Your task to perform on an android device: turn pop-ups off in chrome Image 0: 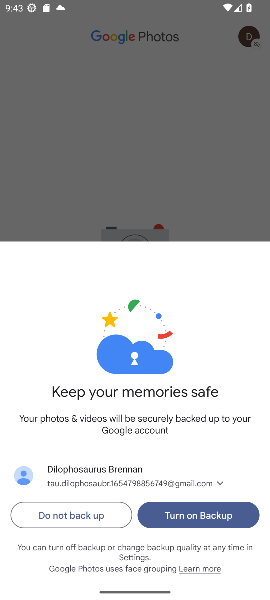
Step 0: press home button
Your task to perform on an android device: turn pop-ups off in chrome Image 1: 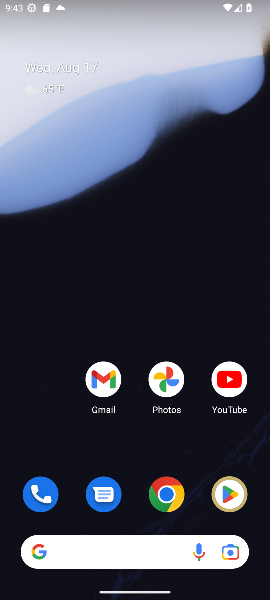
Step 1: drag from (132, 387) to (128, 29)
Your task to perform on an android device: turn pop-ups off in chrome Image 2: 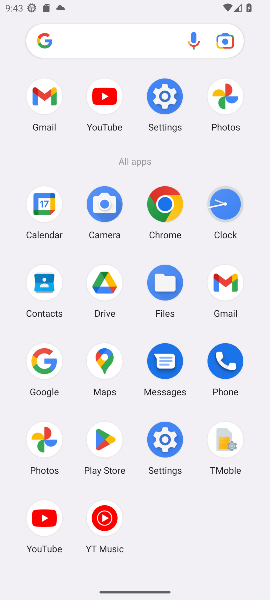
Step 2: click (163, 206)
Your task to perform on an android device: turn pop-ups off in chrome Image 3: 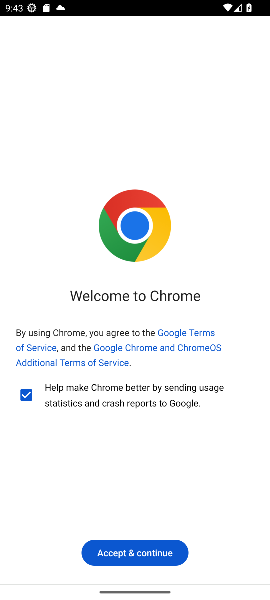
Step 3: click (132, 548)
Your task to perform on an android device: turn pop-ups off in chrome Image 4: 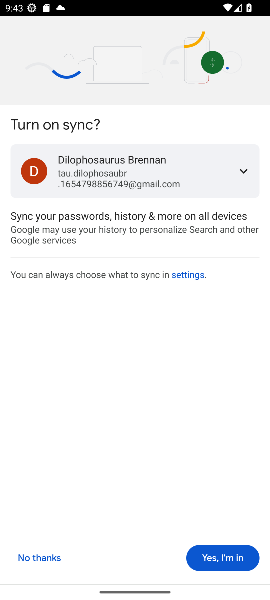
Step 4: click (248, 566)
Your task to perform on an android device: turn pop-ups off in chrome Image 5: 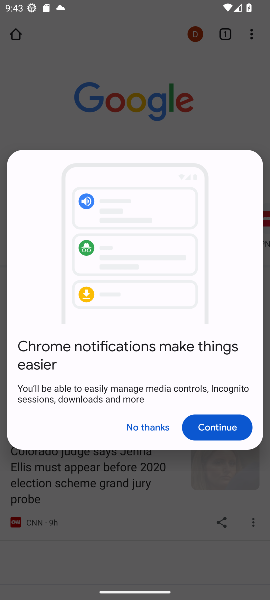
Step 5: click (145, 430)
Your task to perform on an android device: turn pop-ups off in chrome Image 6: 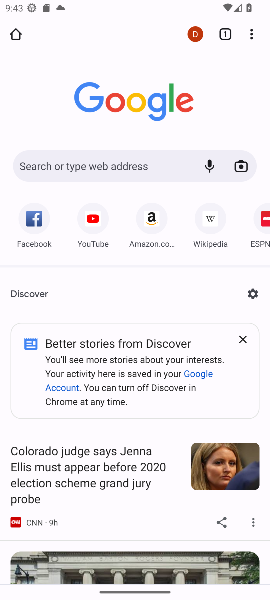
Step 6: drag from (250, 36) to (165, 306)
Your task to perform on an android device: turn pop-ups off in chrome Image 7: 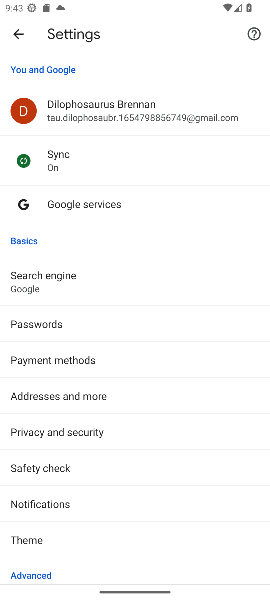
Step 7: drag from (134, 493) to (177, 130)
Your task to perform on an android device: turn pop-ups off in chrome Image 8: 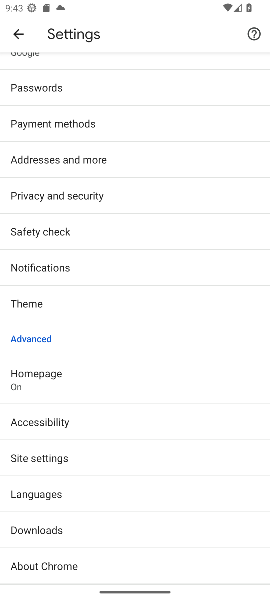
Step 8: click (53, 461)
Your task to perform on an android device: turn pop-ups off in chrome Image 9: 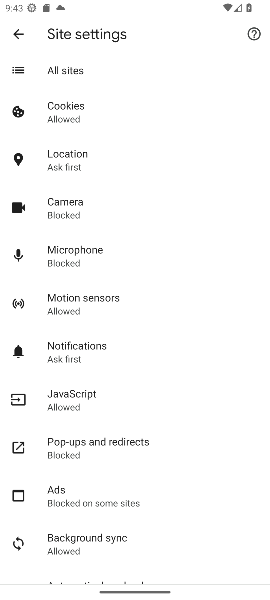
Step 9: click (79, 446)
Your task to perform on an android device: turn pop-ups off in chrome Image 10: 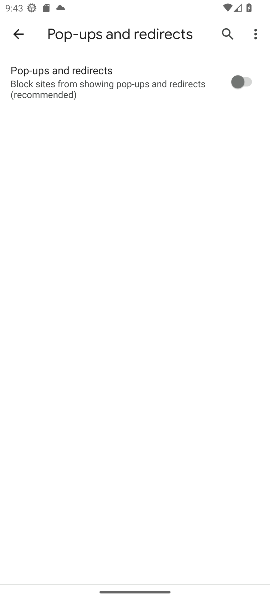
Step 10: task complete